Your task to perform on an android device: delete browsing data in the chrome app Image 0: 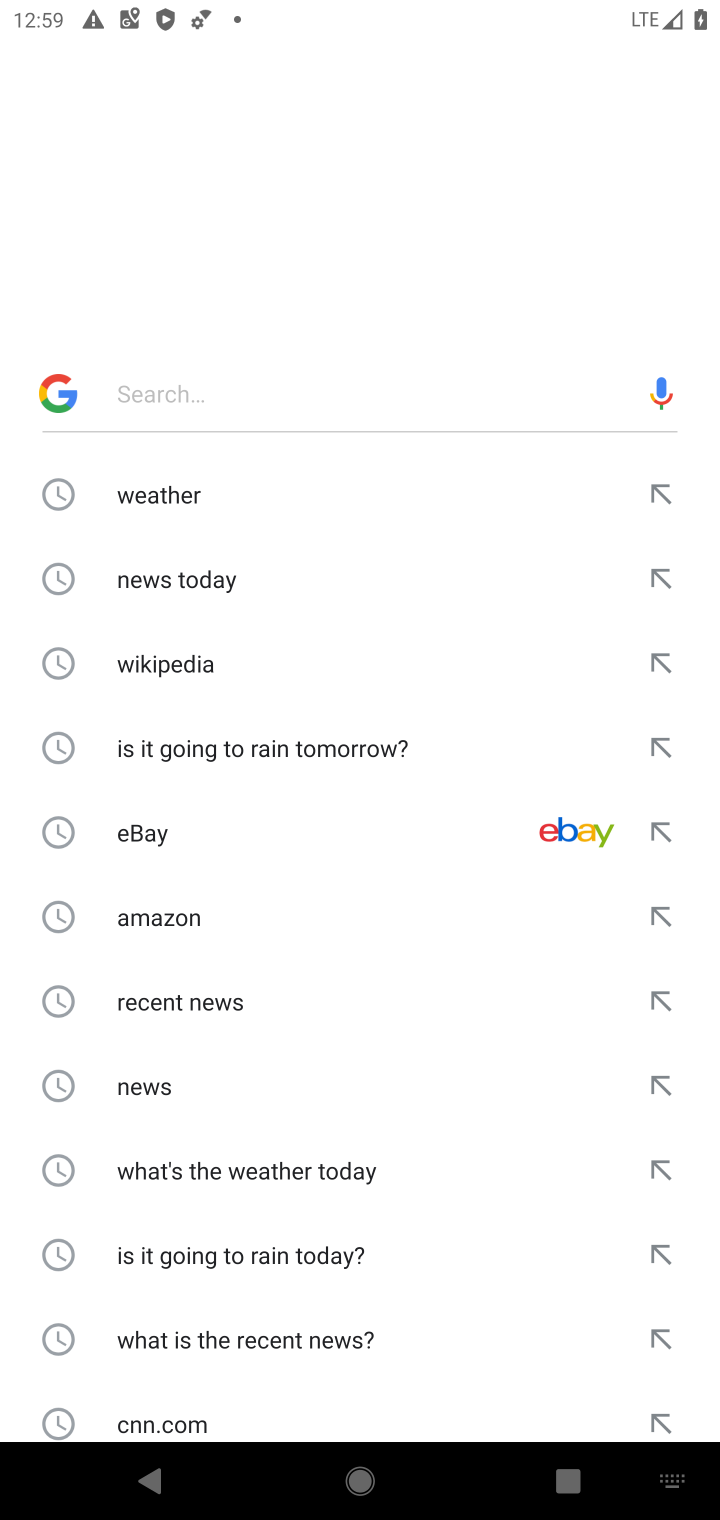
Step 0: press back button
Your task to perform on an android device: delete browsing data in the chrome app Image 1: 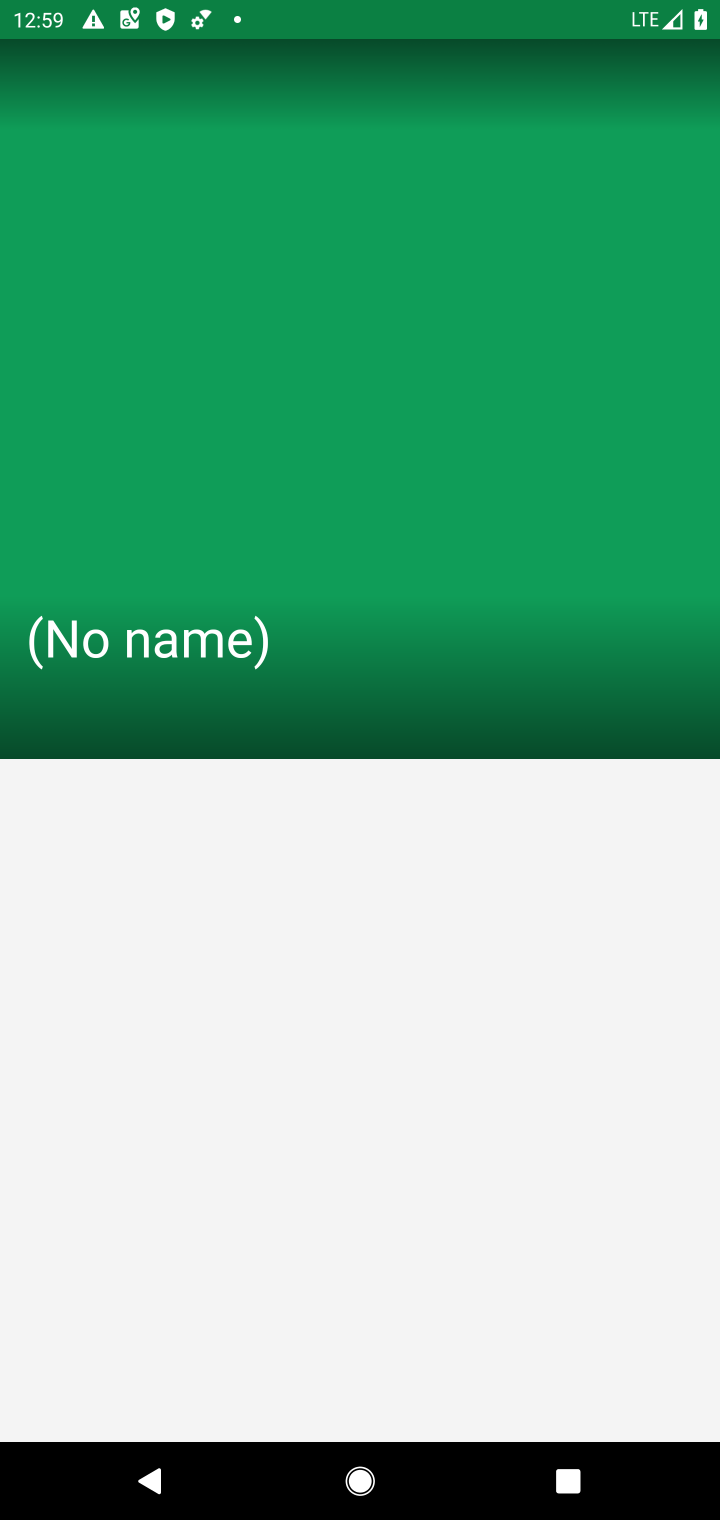
Step 1: press home button
Your task to perform on an android device: delete browsing data in the chrome app Image 2: 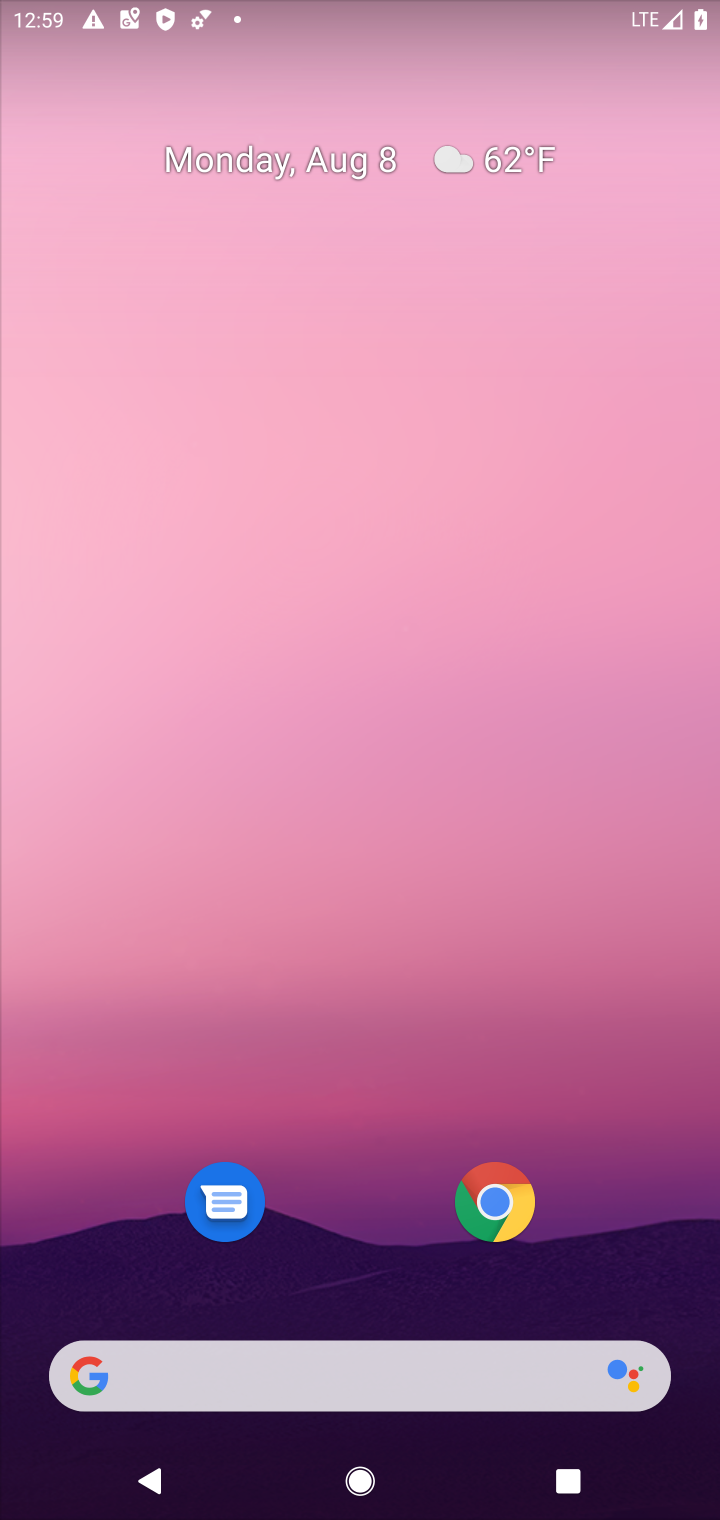
Step 2: drag from (347, 1263) to (355, 31)
Your task to perform on an android device: delete browsing data in the chrome app Image 3: 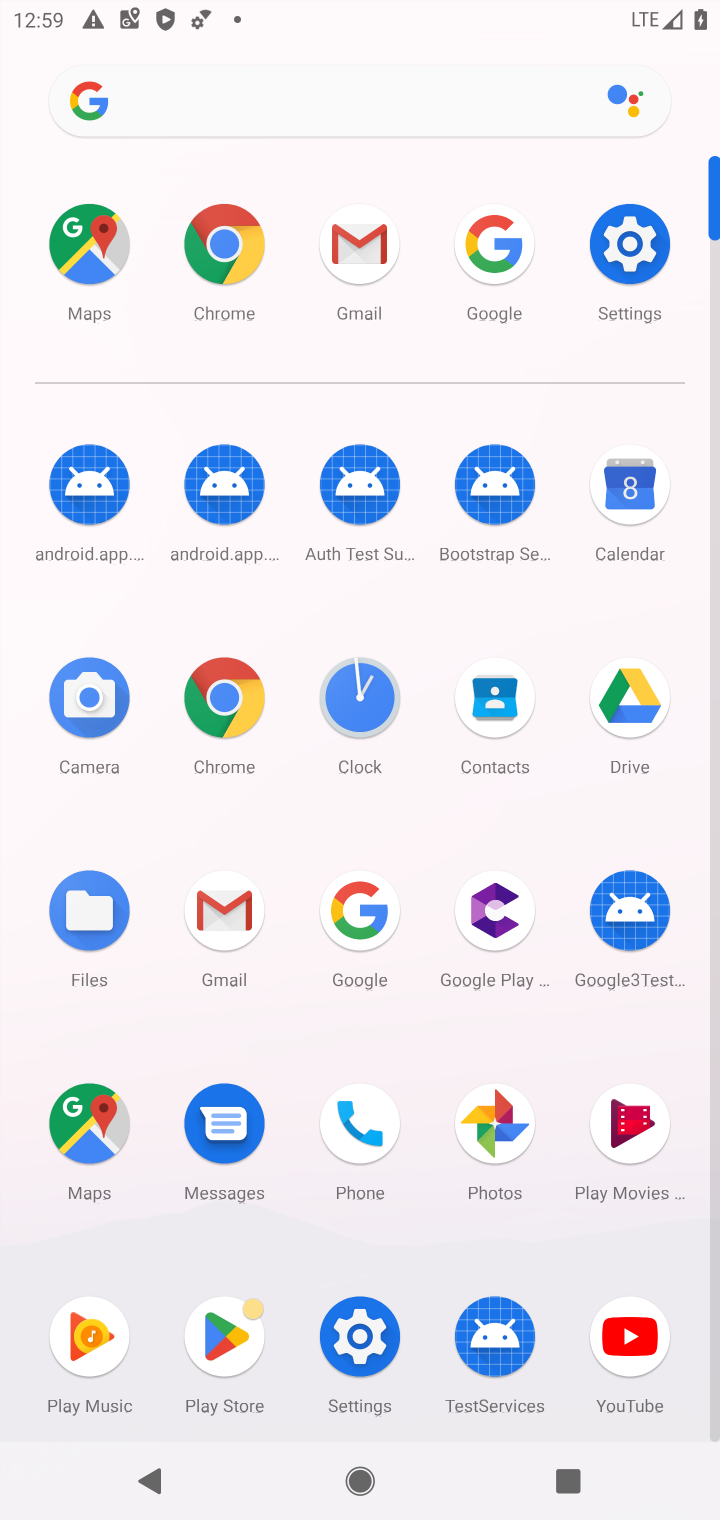
Step 3: click (215, 682)
Your task to perform on an android device: delete browsing data in the chrome app Image 4: 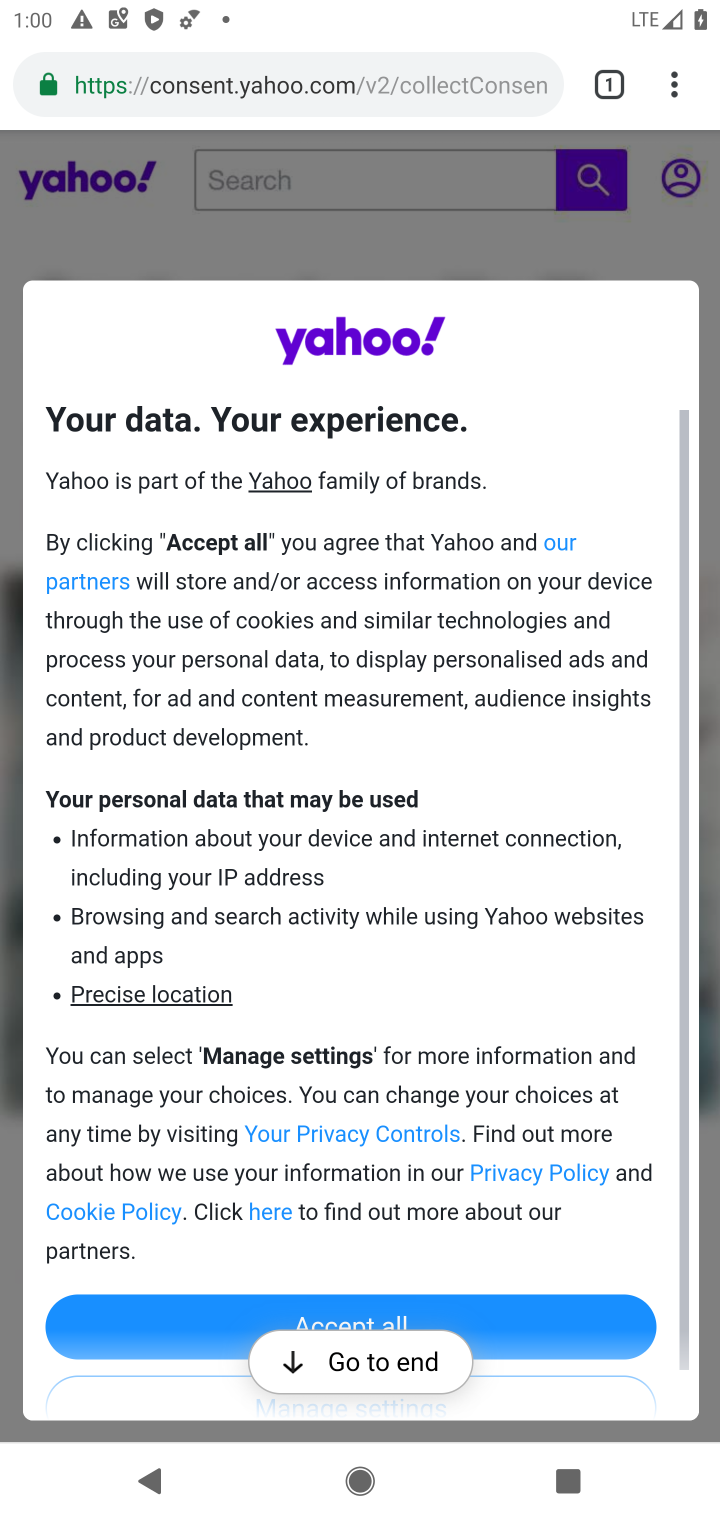
Step 4: click (680, 81)
Your task to perform on an android device: delete browsing data in the chrome app Image 5: 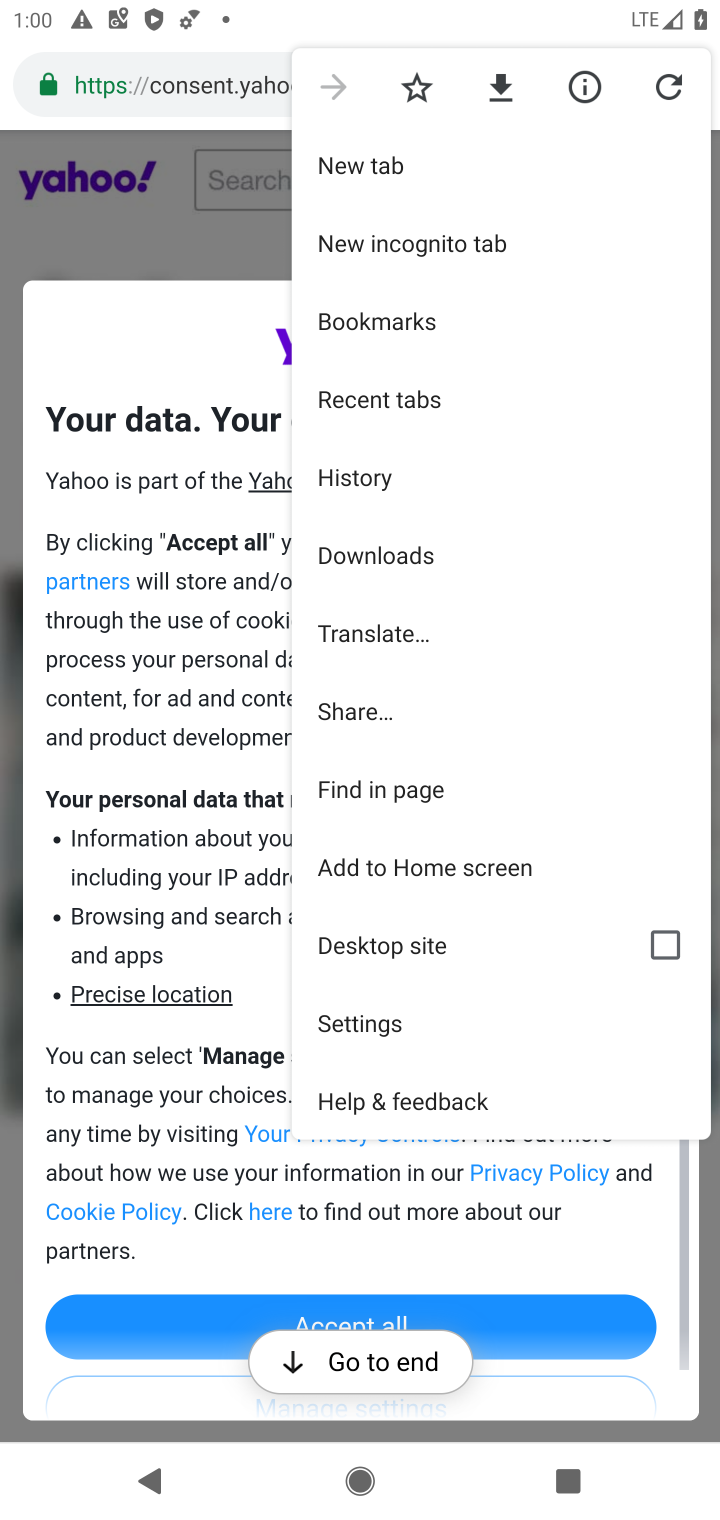
Step 5: click (386, 1031)
Your task to perform on an android device: delete browsing data in the chrome app Image 6: 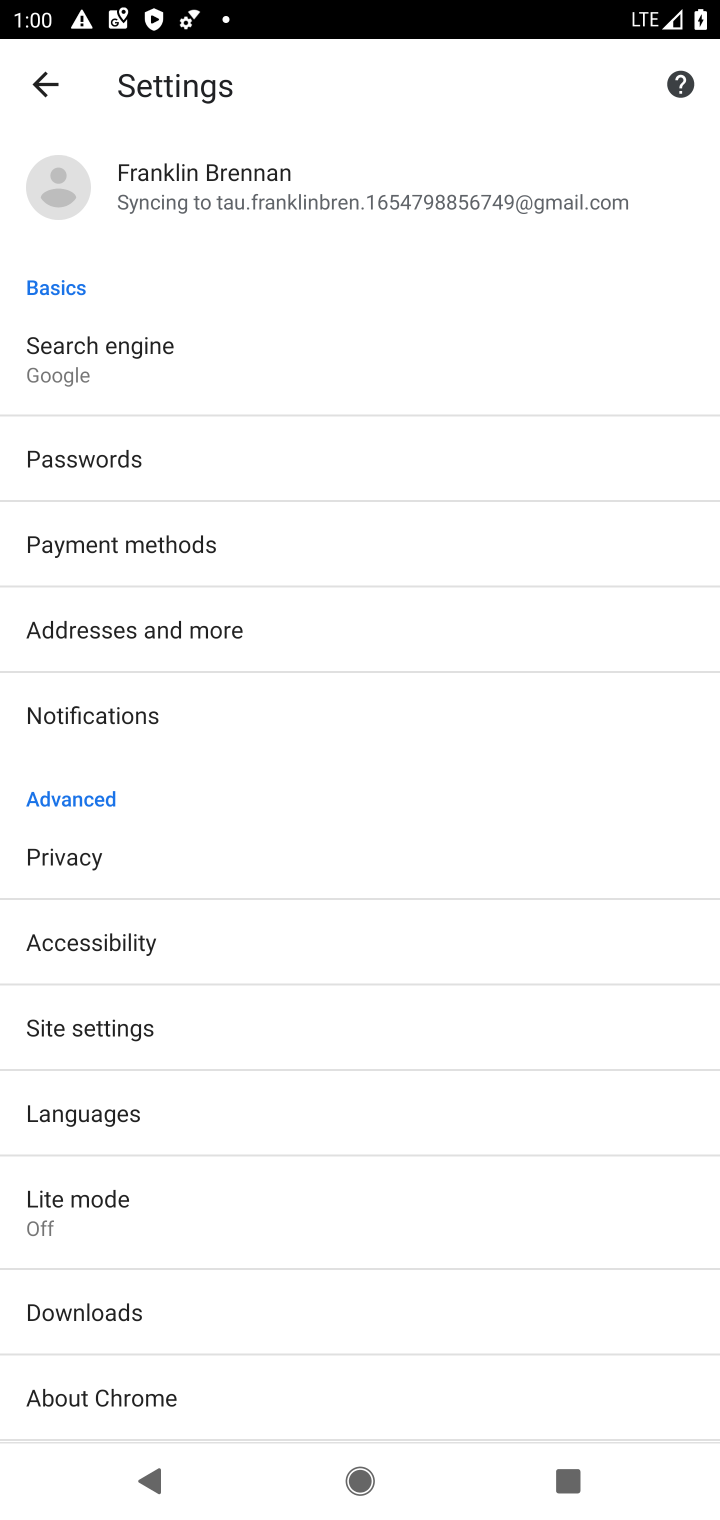
Step 6: press back button
Your task to perform on an android device: delete browsing data in the chrome app Image 7: 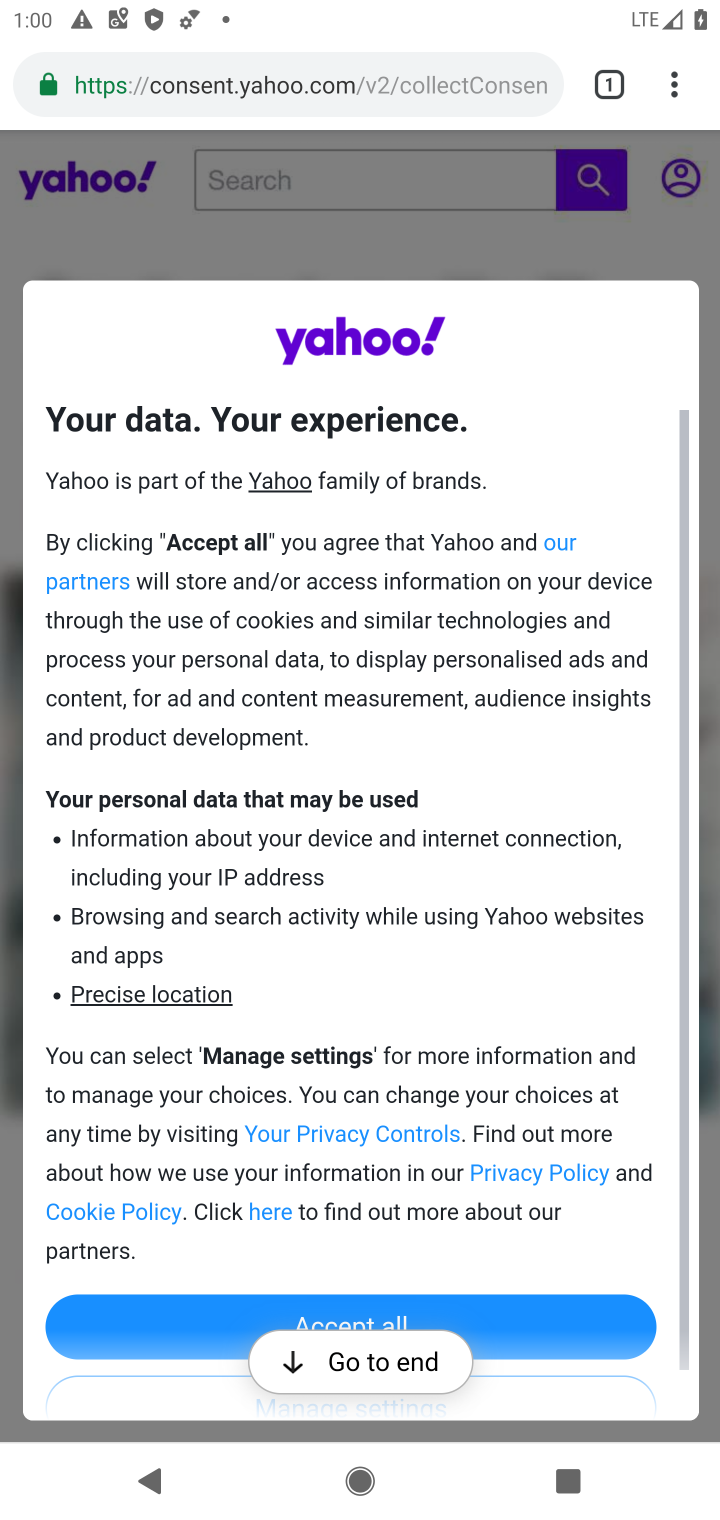
Step 7: click (672, 86)
Your task to perform on an android device: delete browsing data in the chrome app Image 8: 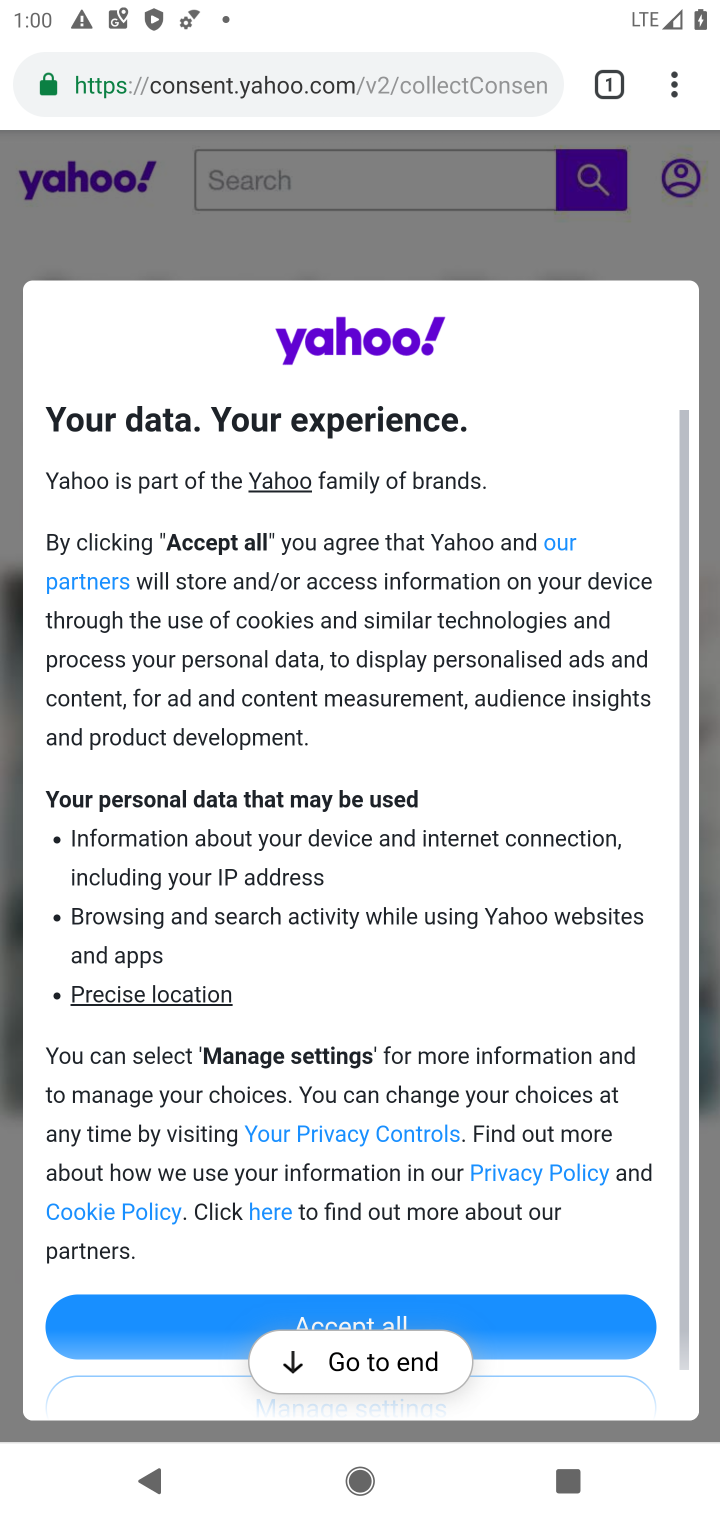
Step 8: click (672, 86)
Your task to perform on an android device: delete browsing data in the chrome app Image 9: 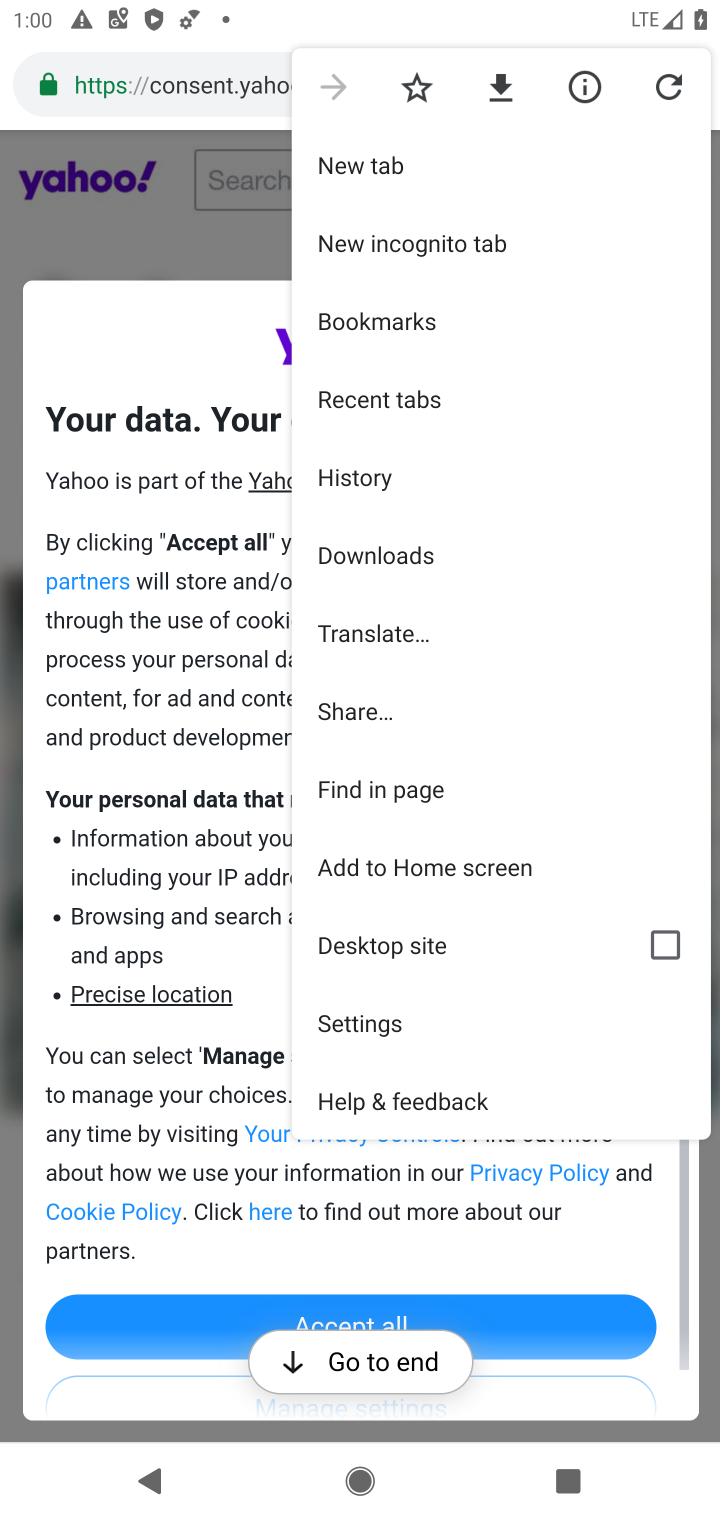
Step 9: click (364, 485)
Your task to perform on an android device: delete browsing data in the chrome app Image 10: 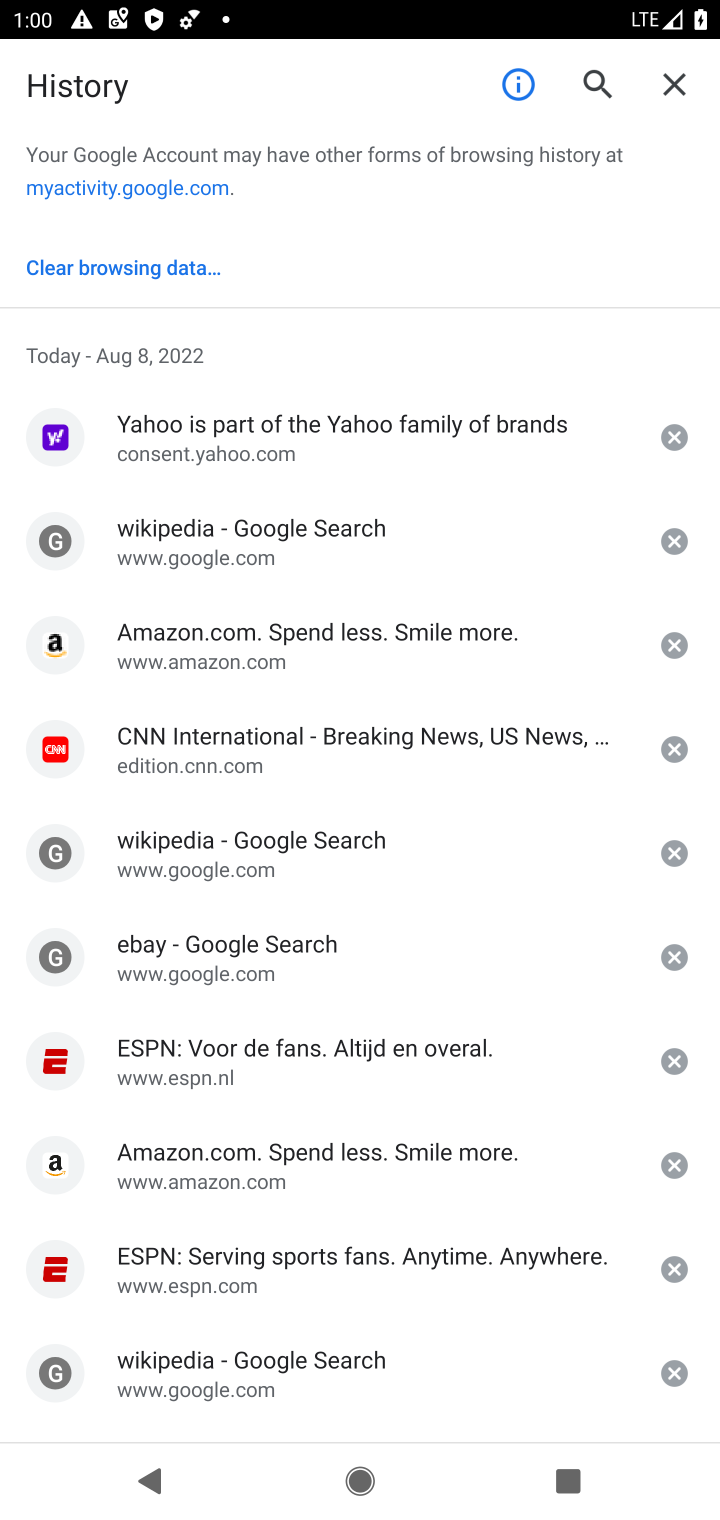
Step 10: click (97, 266)
Your task to perform on an android device: delete browsing data in the chrome app Image 11: 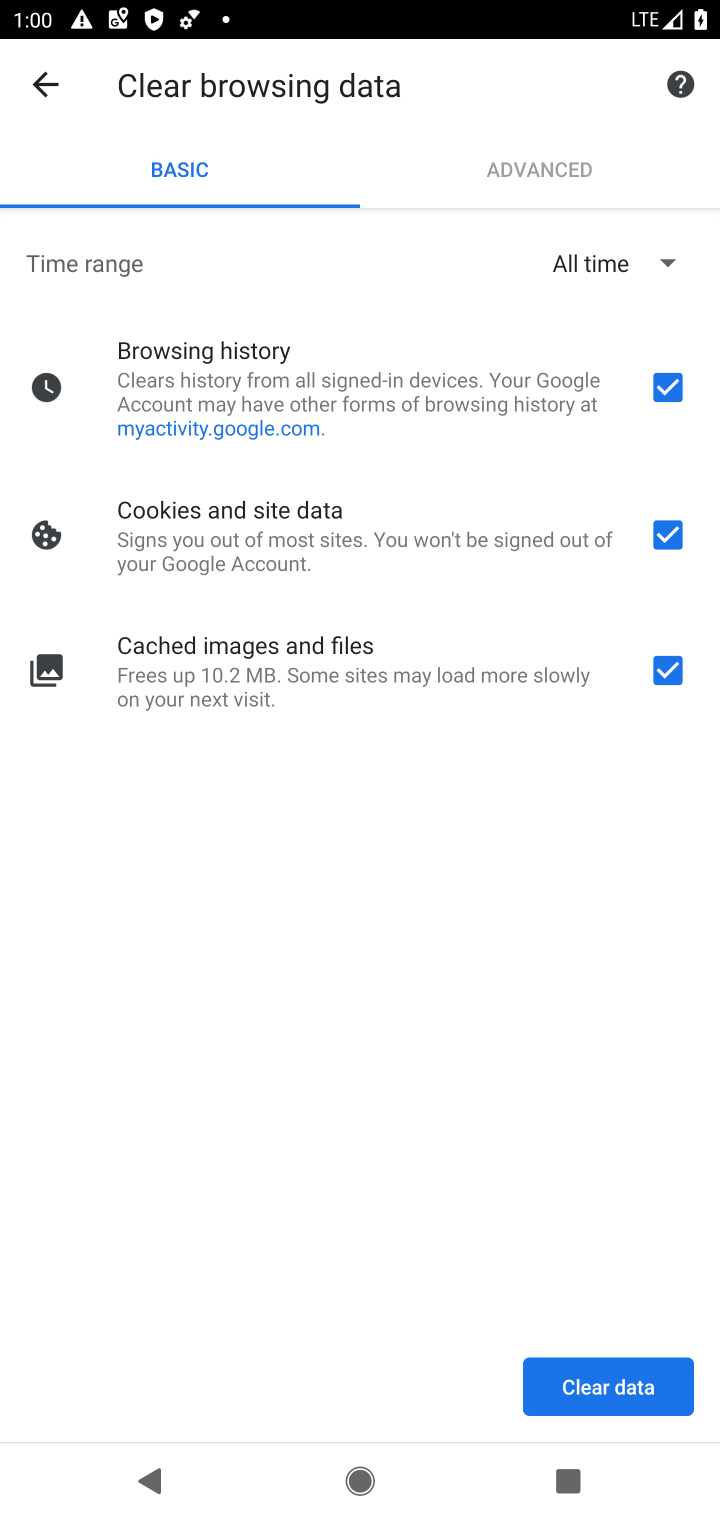
Step 11: click (546, 1403)
Your task to perform on an android device: delete browsing data in the chrome app Image 12: 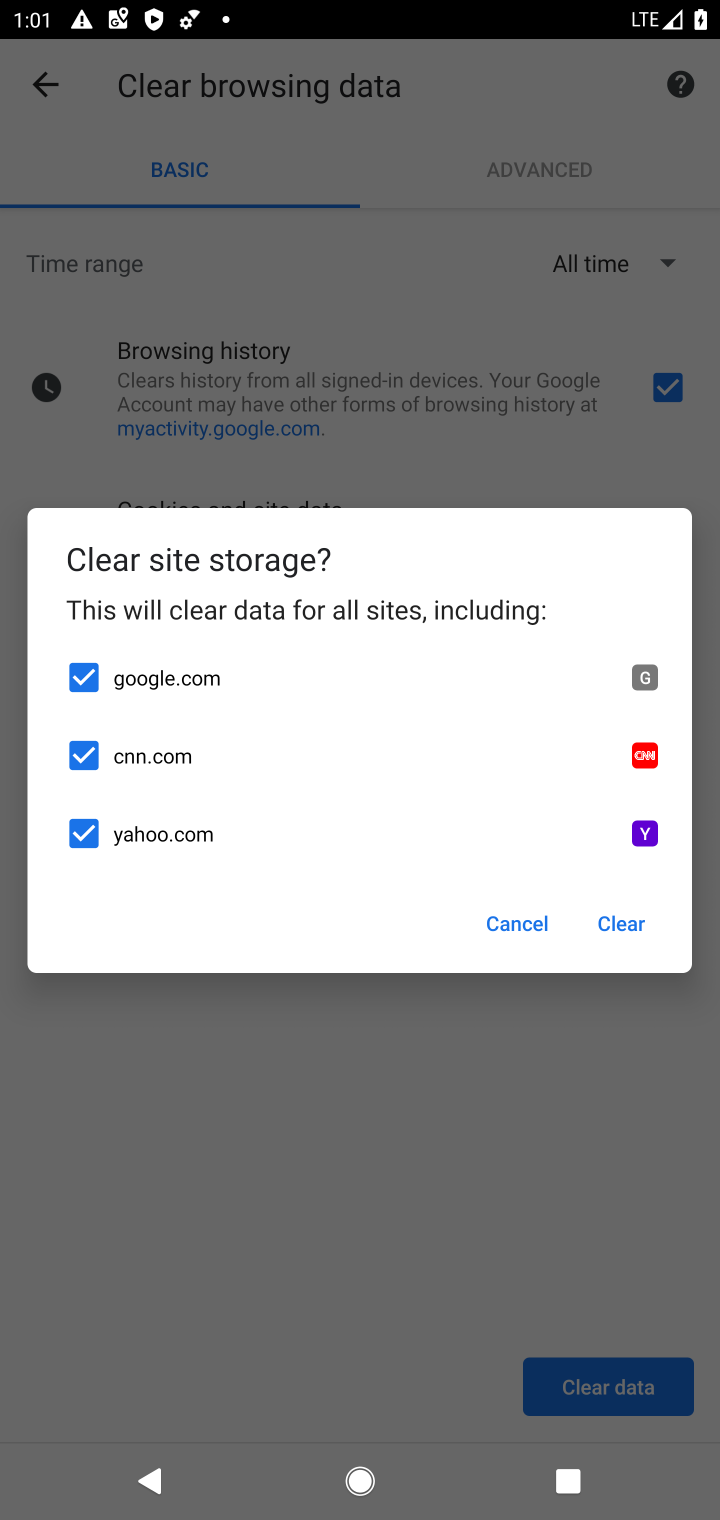
Step 12: click (621, 933)
Your task to perform on an android device: delete browsing data in the chrome app Image 13: 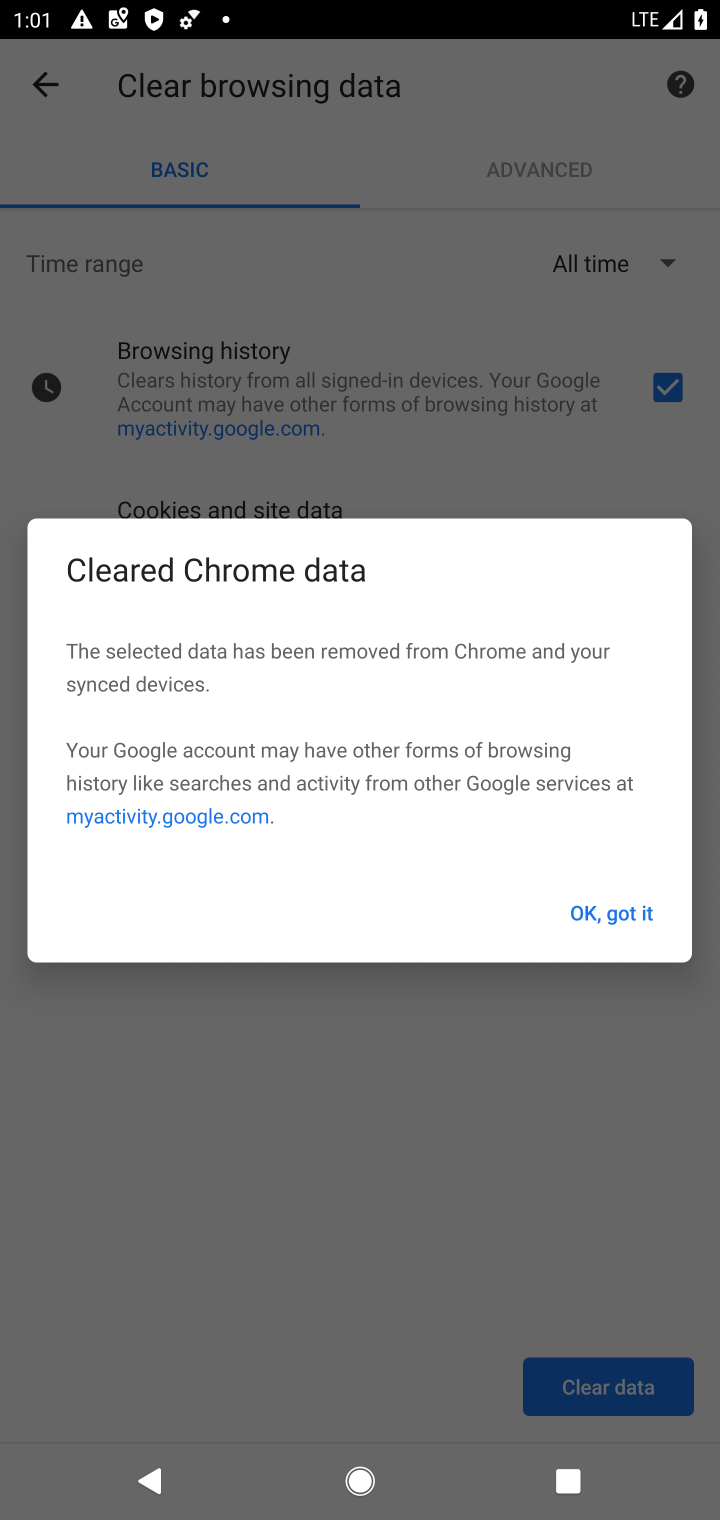
Step 13: click (621, 933)
Your task to perform on an android device: delete browsing data in the chrome app Image 14: 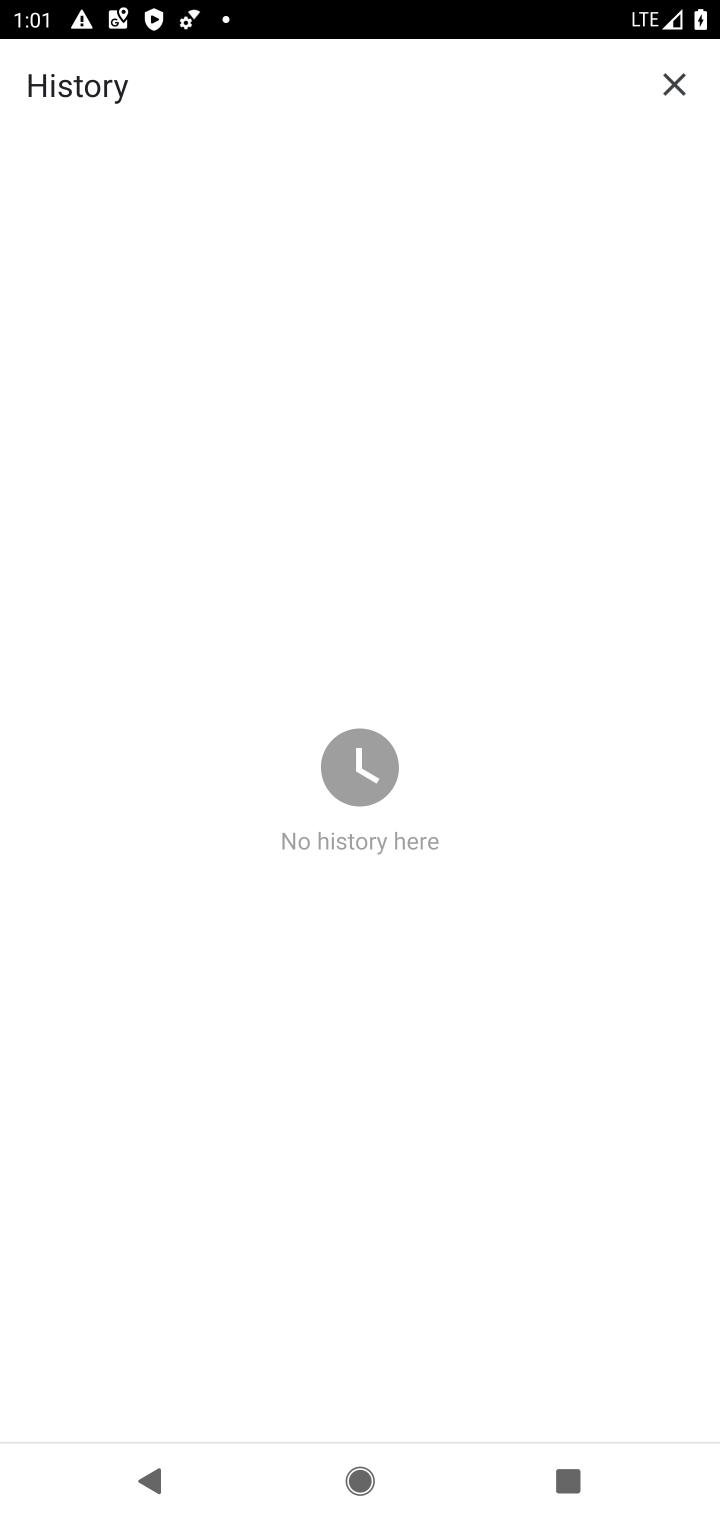
Step 14: task complete